Your task to perform on an android device: manage bookmarks in the chrome app Image 0: 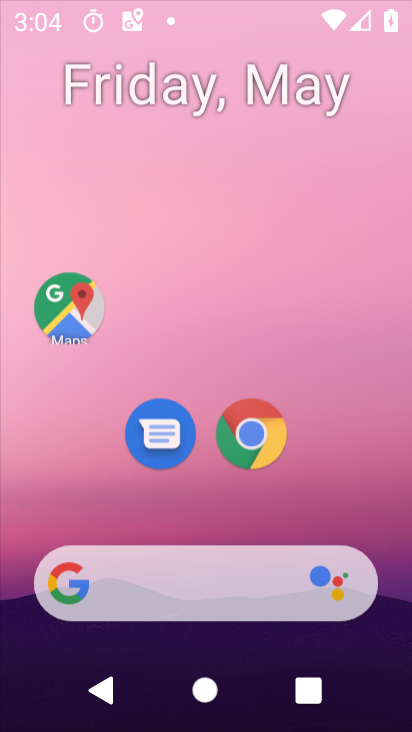
Step 0: press home button
Your task to perform on an android device: manage bookmarks in the chrome app Image 1: 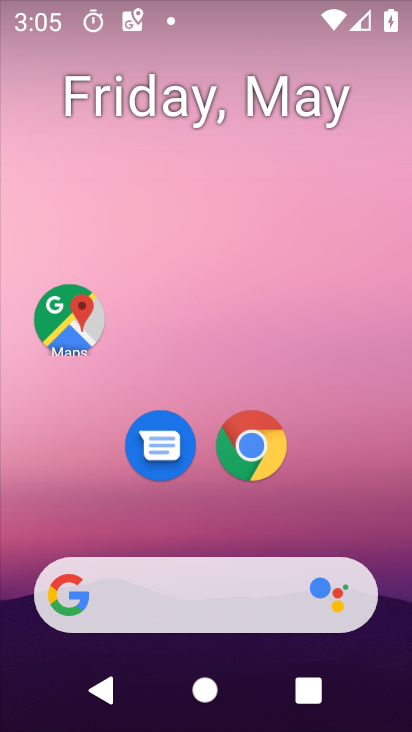
Step 1: drag from (195, 605) to (261, 125)
Your task to perform on an android device: manage bookmarks in the chrome app Image 2: 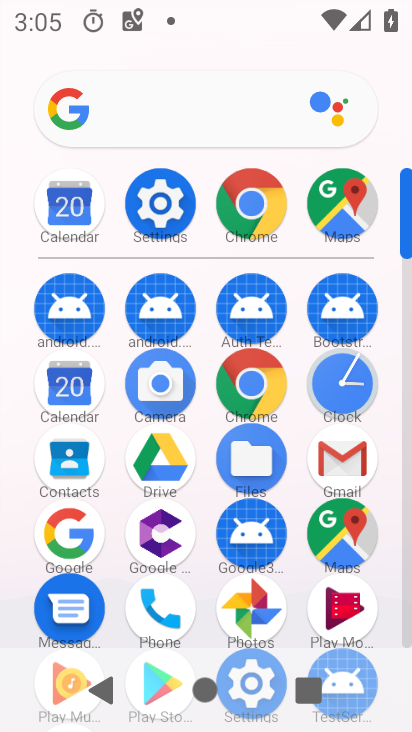
Step 2: click (256, 228)
Your task to perform on an android device: manage bookmarks in the chrome app Image 3: 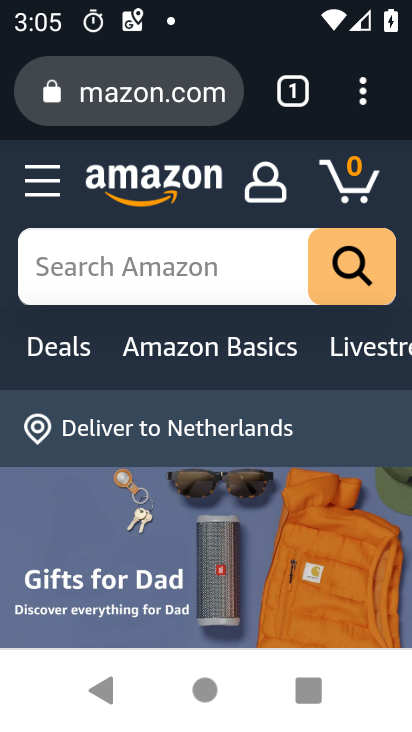
Step 3: click (362, 90)
Your task to perform on an android device: manage bookmarks in the chrome app Image 4: 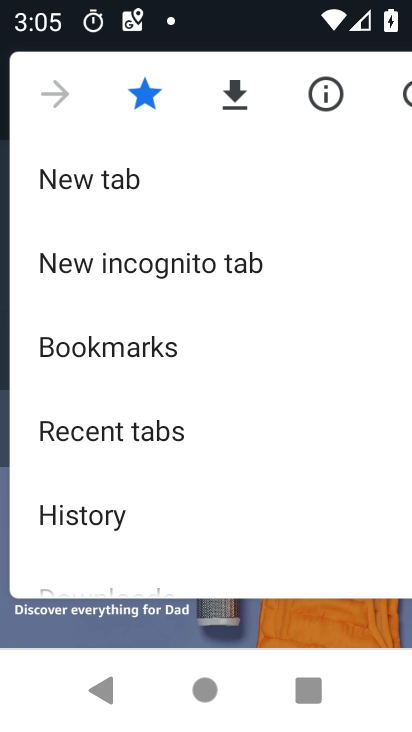
Step 4: click (130, 343)
Your task to perform on an android device: manage bookmarks in the chrome app Image 5: 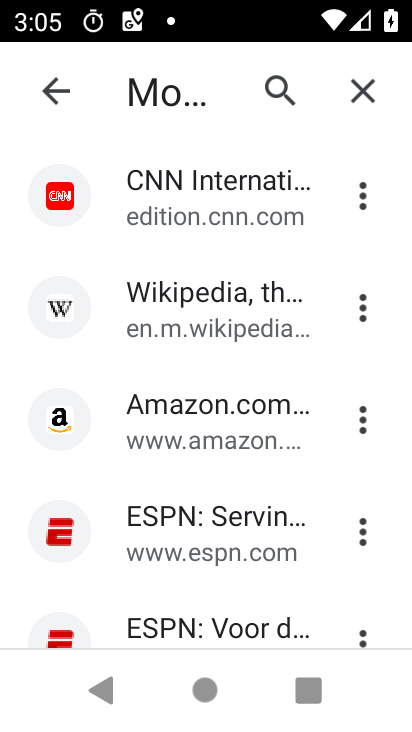
Step 5: task complete